Your task to perform on an android device: Open the calendar app, open the side menu, and click the "Day" option Image 0: 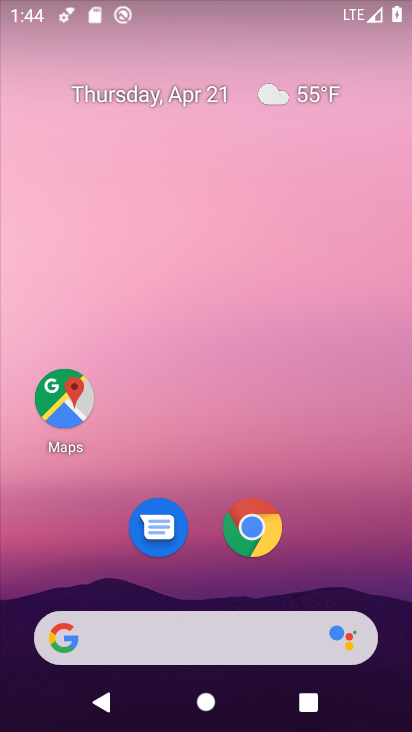
Step 0: drag from (383, 499) to (344, 211)
Your task to perform on an android device: Open the calendar app, open the side menu, and click the "Day" option Image 1: 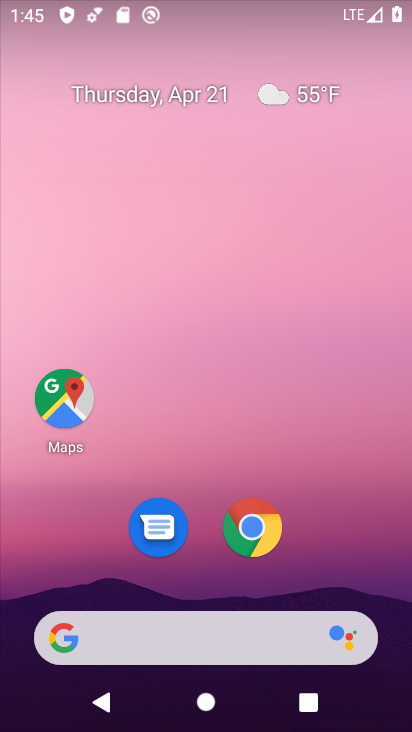
Step 1: drag from (336, 545) to (335, 65)
Your task to perform on an android device: Open the calendar app, open the side menu, and click the "Day" option Image 2: 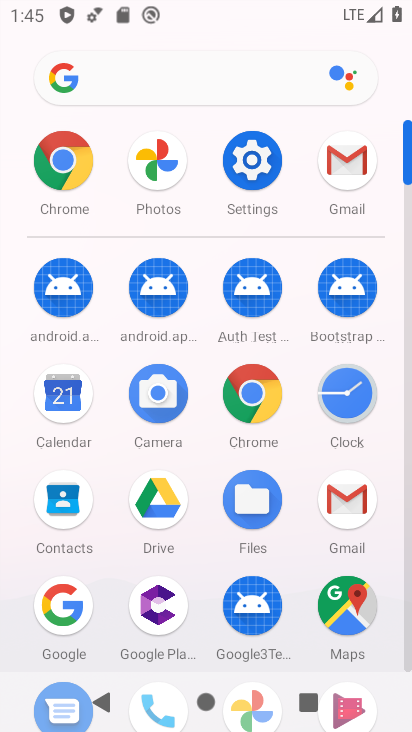
Step 2: click (50, 421)
Your task to perform on an android device: Open the calendar app, open the side menu, and click the "Day" option Image 3: 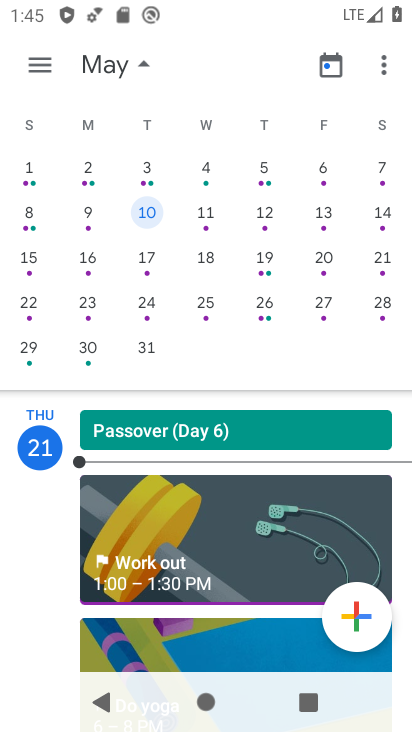
Step 3: click (36, 63)
Your task to perform on an android device: Open the calendar app, open the side menu, and click the "Day" option Image 4: 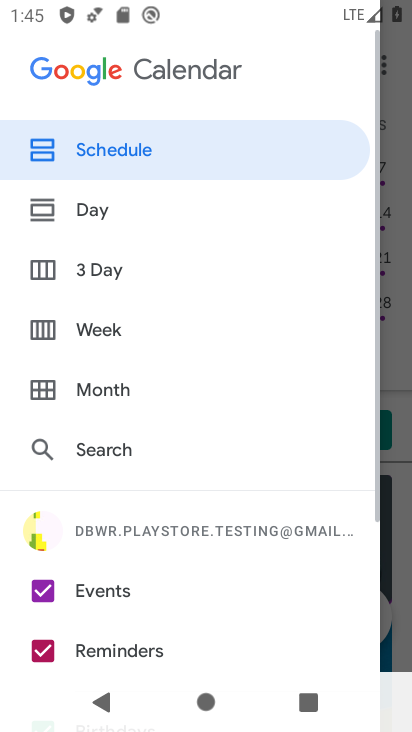
Step 4: click (204, 215)
Your task to perform on an android device: Open the calendar app, open the side menu, and click the "Day" option Image 5: 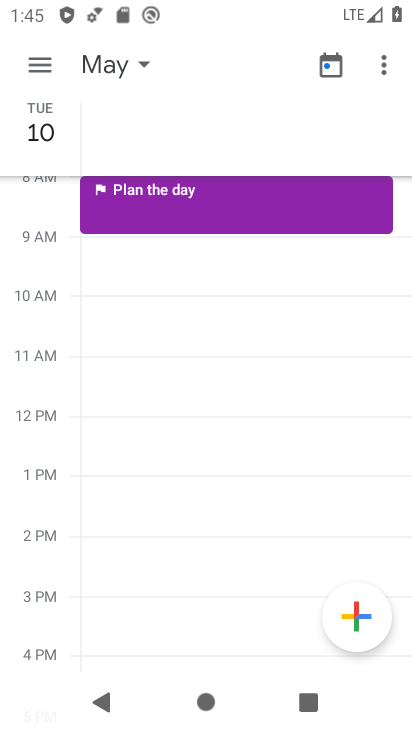
Step 5: task complete